Your task to perform on an android device: check data usage Image 0: 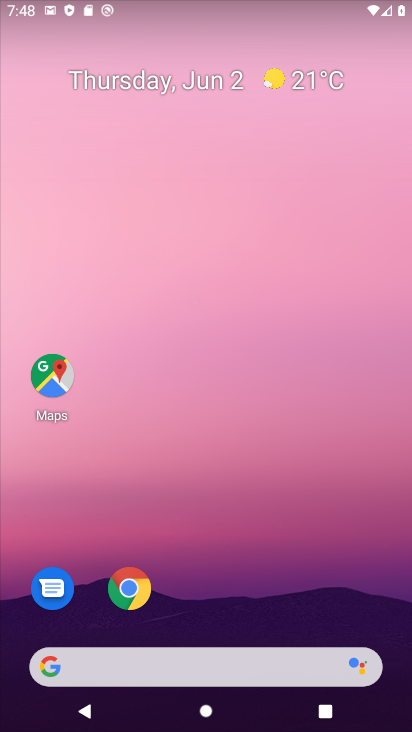
Step 0: drag from (162, 665) to (205, 24)
Your task to perform on an android device: check data usage Image 1: 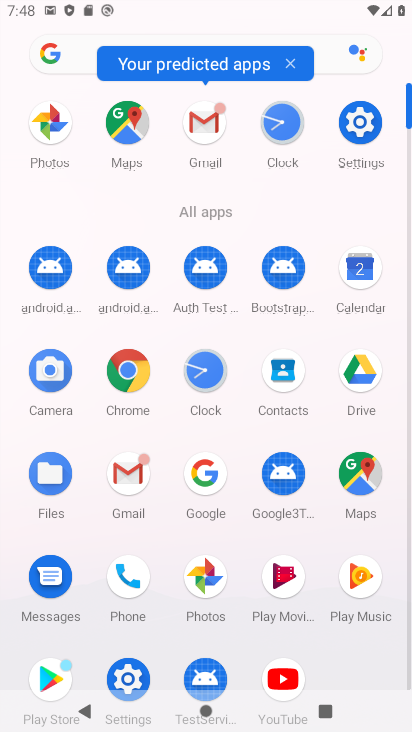
Step 1: click (355, 136)
Your task to perform on an android device: check data usage Image 2: 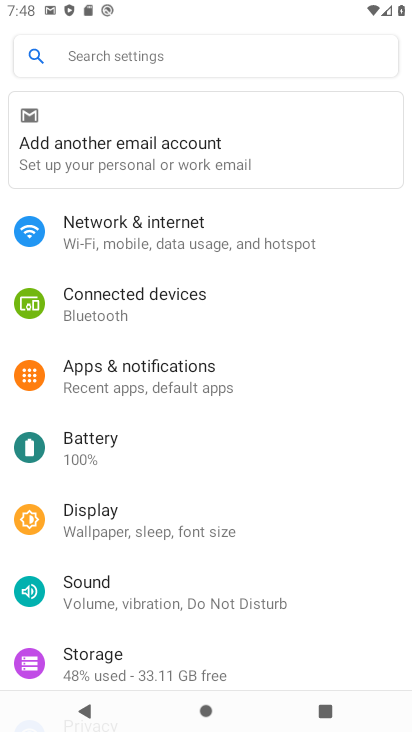
Step 2: click (151, 251)
Your task to perform on an android device: check data usage Image 3: 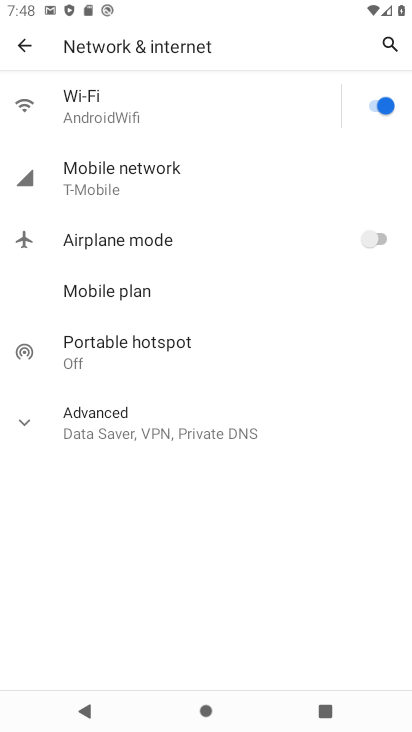
Step 3: click (127, 190)
Your task to perform on an android device: check data usage Image 4: 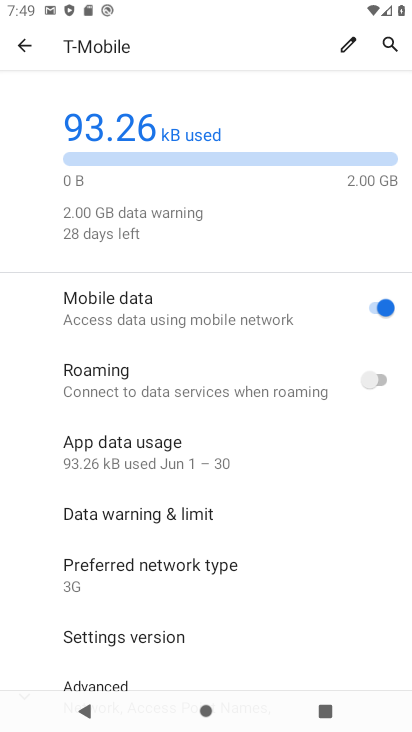
Step 4: task complete